Your task to perform on an android device: change the clock display to digital Image 0: 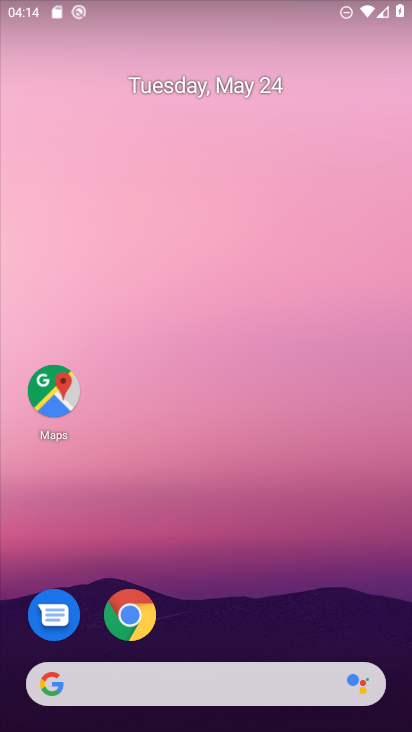
Step 0: drag from (321, 563) to (291, 12)
Your task to perform on an android device: change the clock display to digital Image 1: 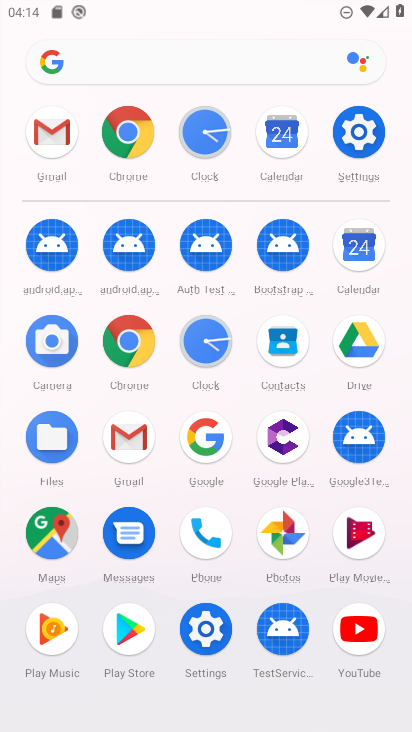
Step 1: click (204, 342)
Your task to perform on an android device: change the clock display to digital Image 2: 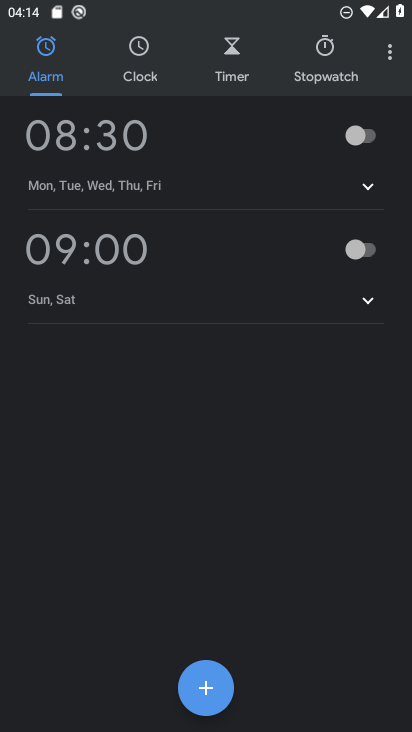
Step 2: drag from (385, 56) to (302, 90)
Your task to perform on an android device: change the clock display to digital Image 3: 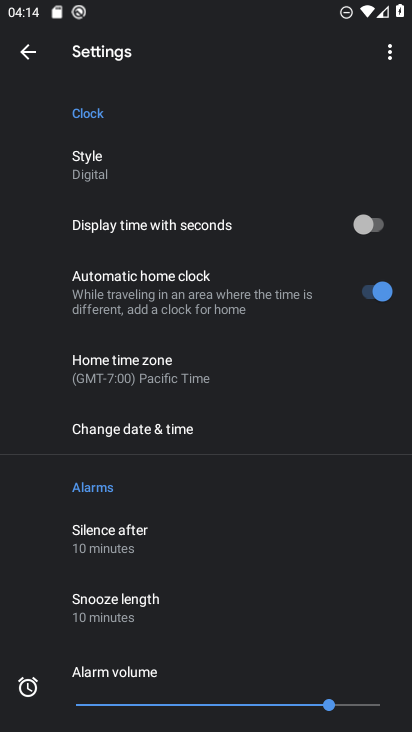
Step 3: click (163, 170)
Your task to perform on an android device: change the clock display to digital Image 4: 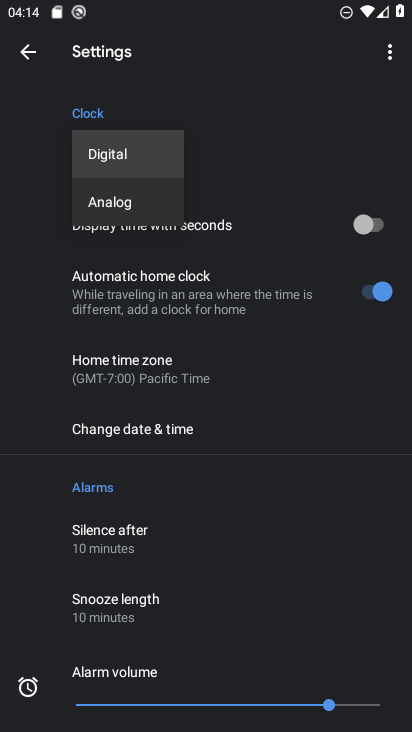
Step 4: click (163, 170)
Your task to perform on an android device: change the clock display to digital Image 5: 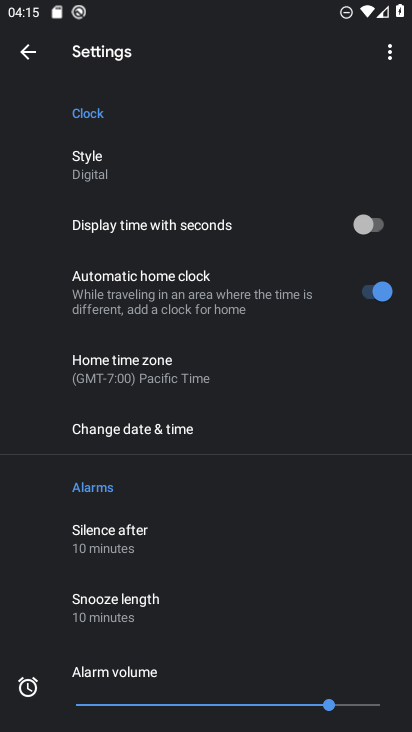
Step 5: task complete